Your task to perform on an android device: Go to network settings Image 0: 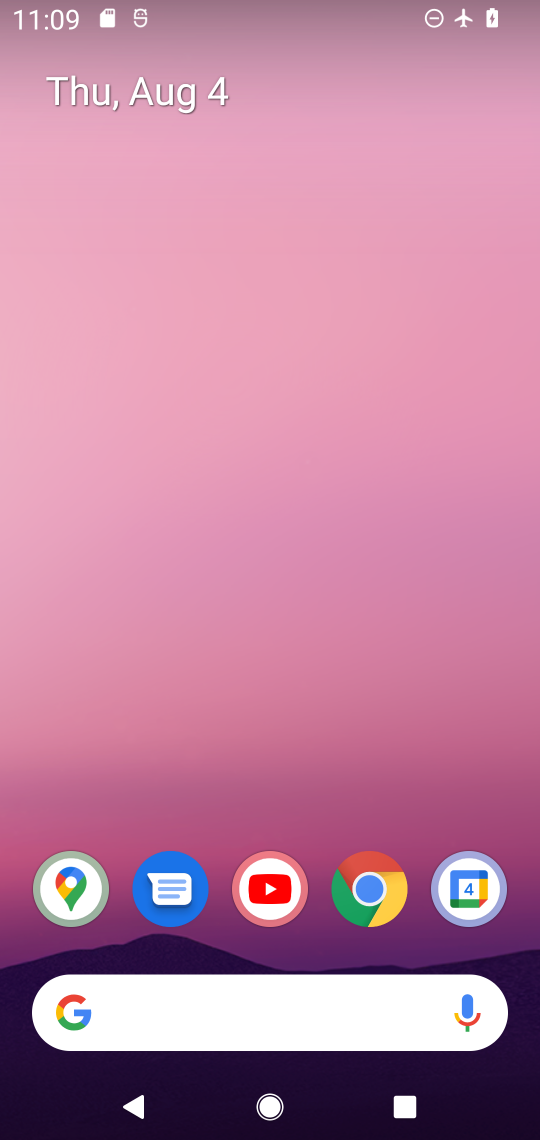
Step 0: press home button
Your task to perform on an android device: Go to network settings Image 1: 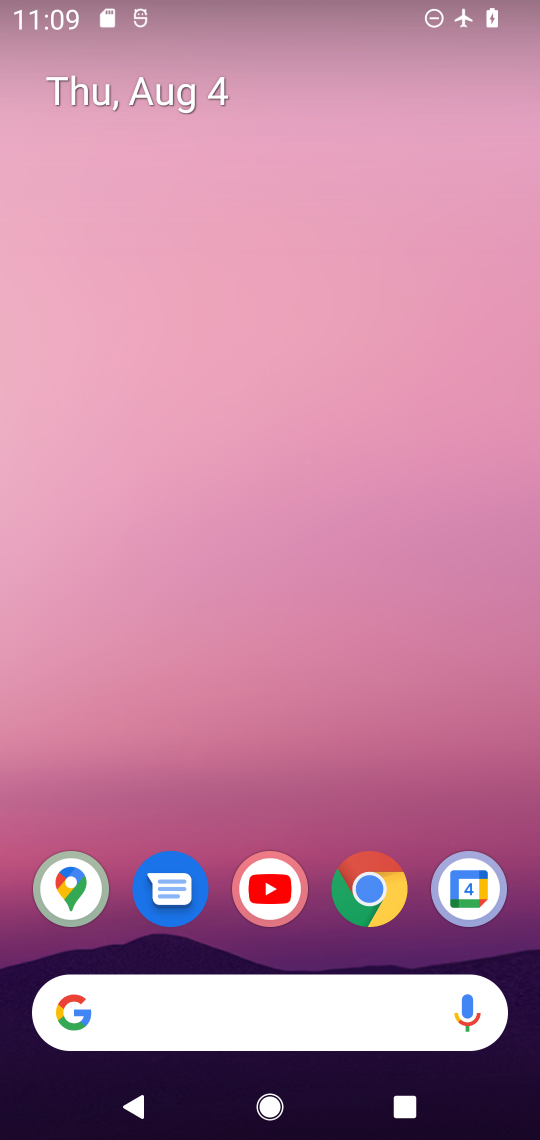
Step 1: drag from (422, 749) to (435, 101)
Your task to perform on an android device: Go to network settings Image 2: 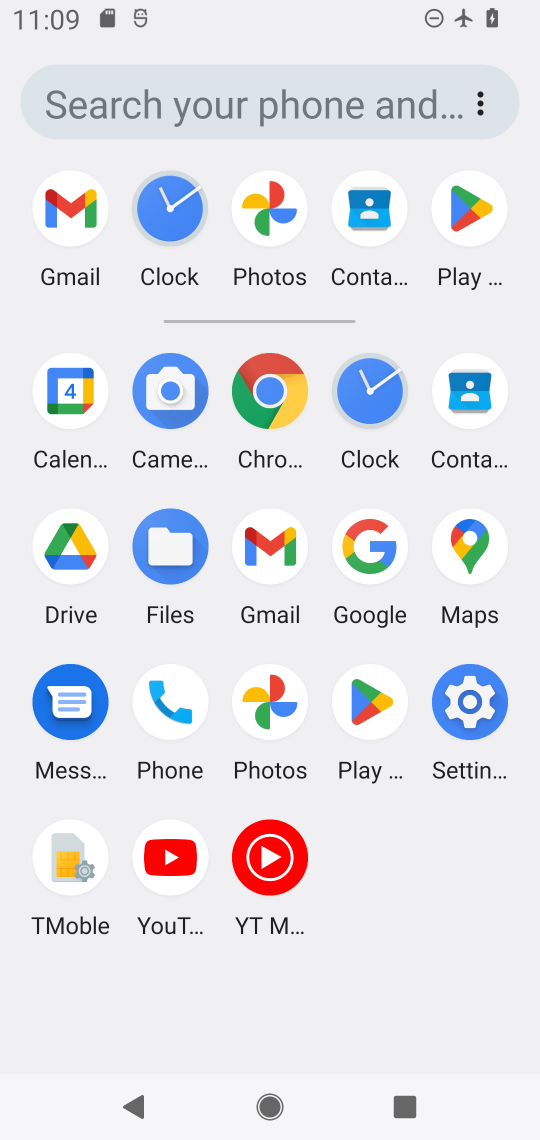
Step 2: click (466, 692)
Your task to perform on an android device: Go to network settings Image 3: 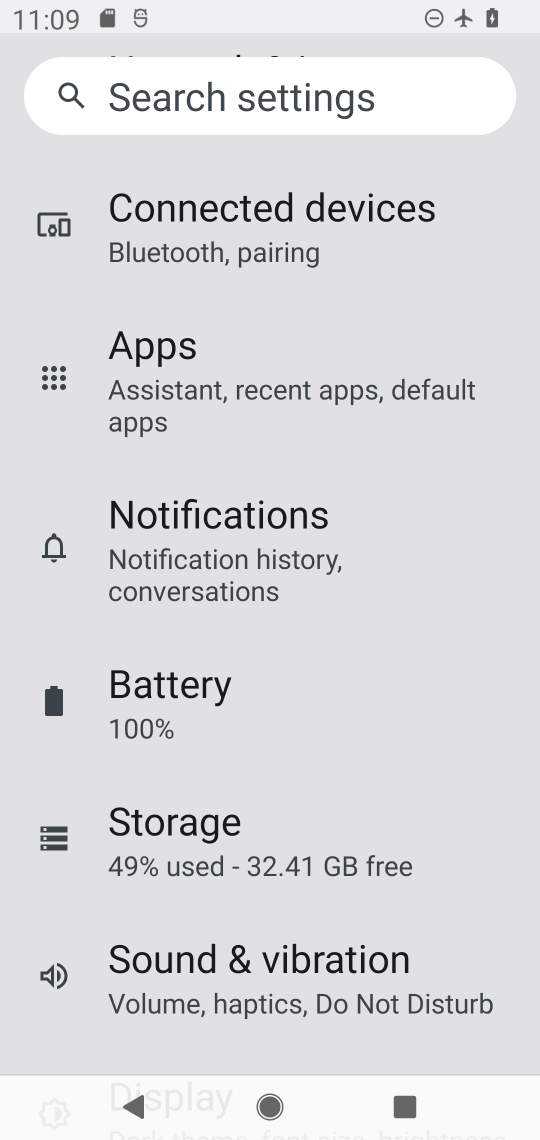
Step 3: drag from (406, 437) to (431, 768)
Your task to perform on an android device: Go to network settings Image 4: 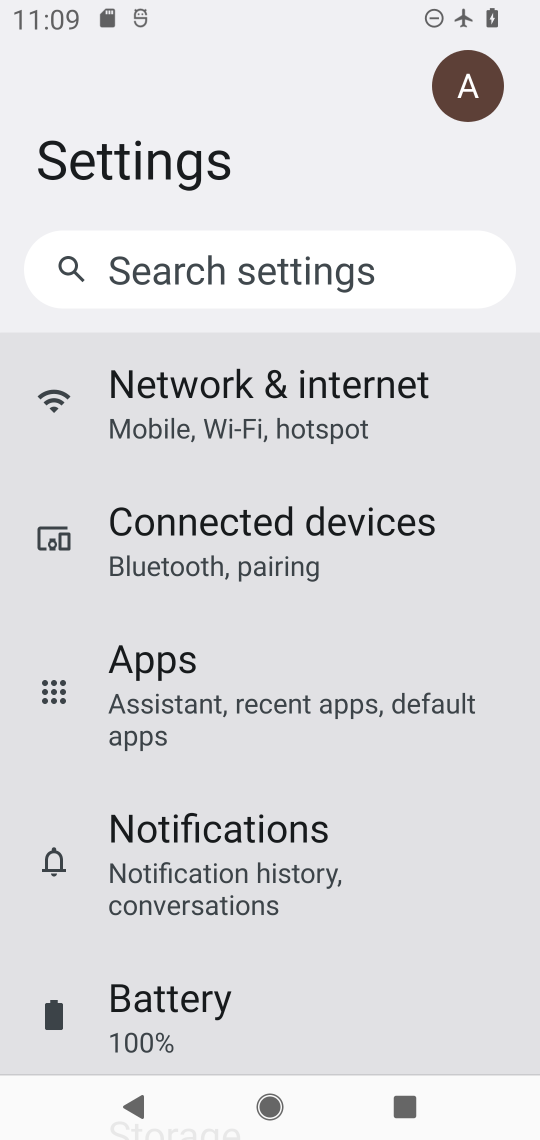
Step 4: click (272, 415)
Your task to perform on an android device: Go to network settings Image 5: 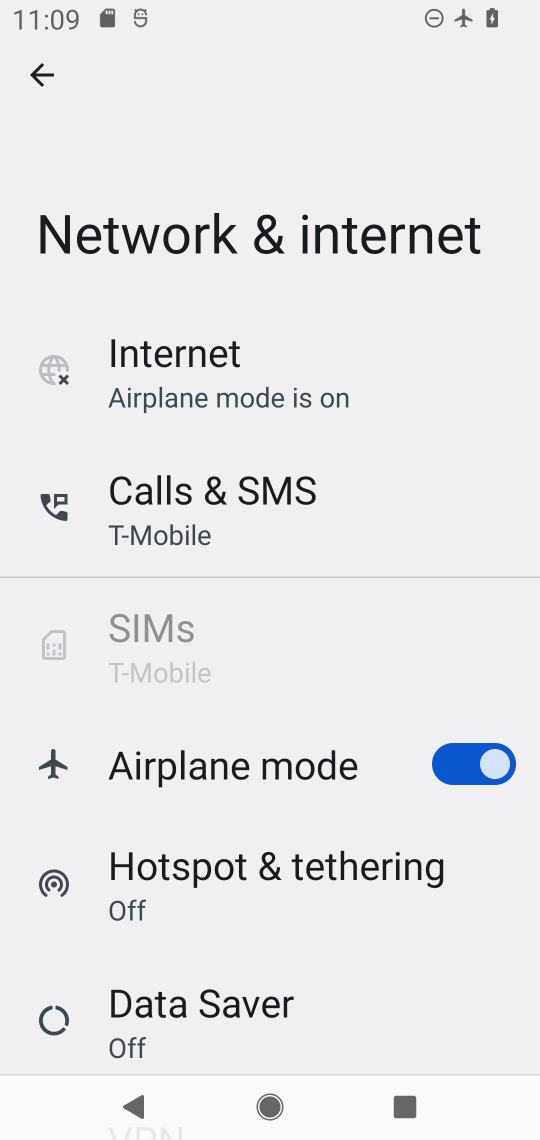
Step 5: task complete